Your task to perform on an android device: Set the phone to "Do not disturb". Image 0: 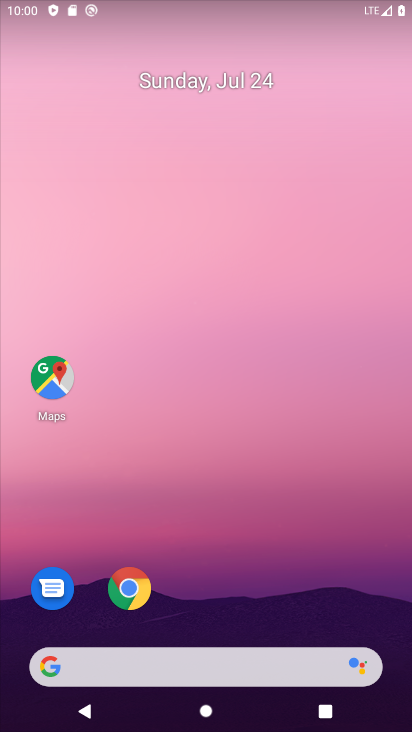
Step 0: drag from (133, 705) to (377, 33)
Your task to perform on an android device: Set the phone to "Do not disturb". Image 1: 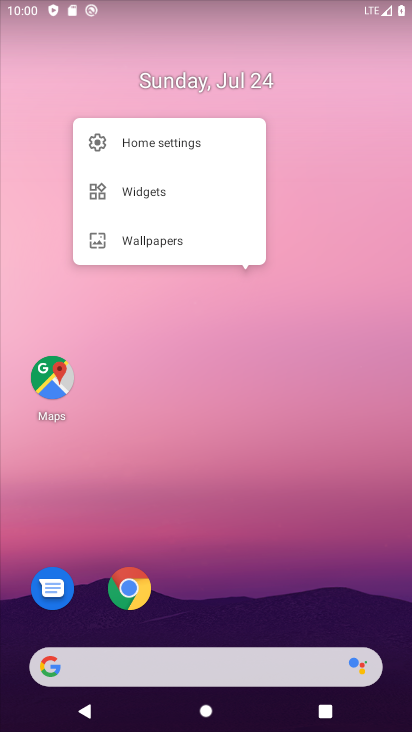
Step 1: click (310, 549)
Your task to perform on an android device: Set the phone to "Do not disturb". Image 2: 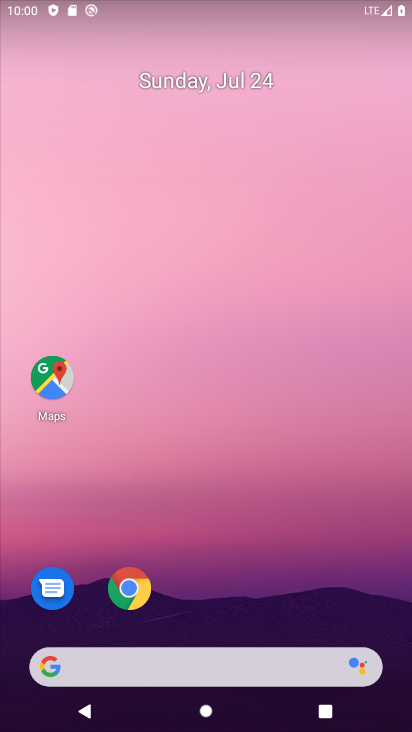
Step 2: drag from (276, 717) to (333, 73)
Your task to perform on an android device: Set the phone to "Do not disturb". Image 3: 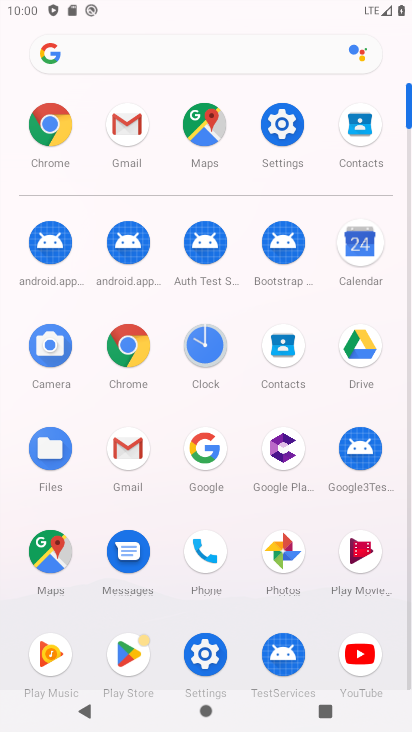
Step 3: click (275, 116)
Your task to perform on an android device: Set the phone to "Do not disturb". Image 4: 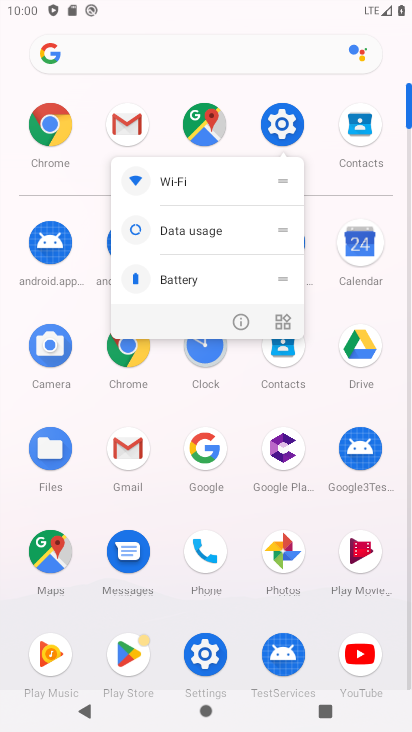
Step 4: click (275, 116)
Your task to perform on an android device: Set the phone to "Do not disturb". Image 5: 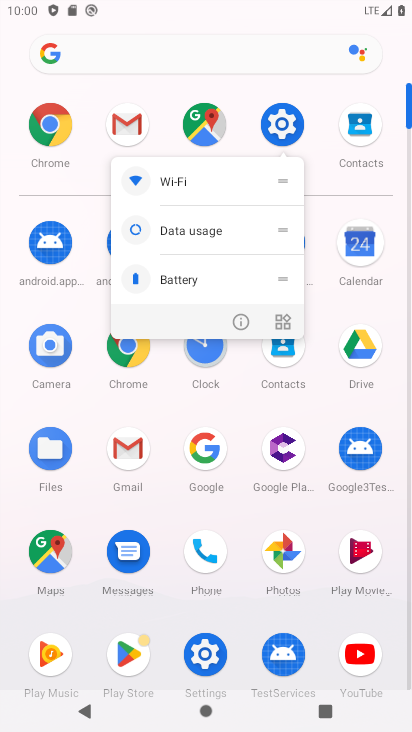
Step 5: click (275, 116)
Your task to perform on an android device: Set the phone to "Do not disturb". Image 6: 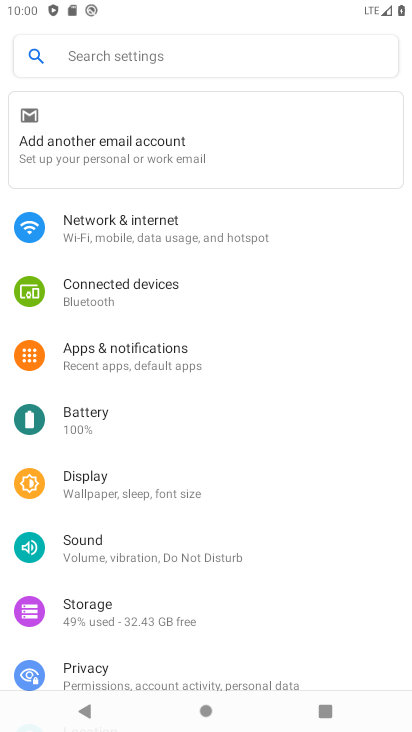
Step 6: click (224, 554)
Your task to perform on an android device: Set the phone to "Do not disturb". Image 7: 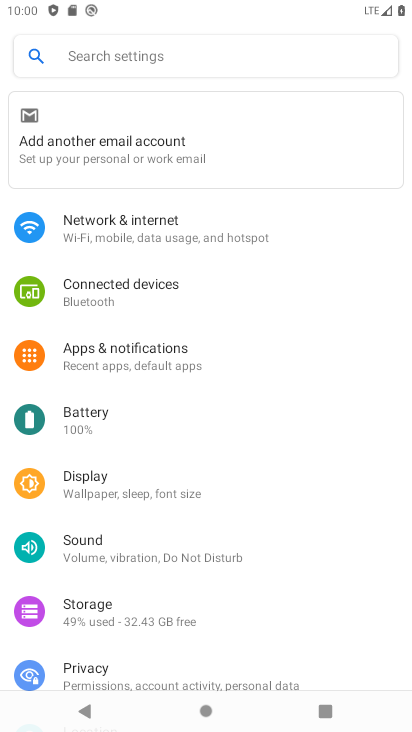
Step 7: click (224, 554)
Your task to perform on an android device: Set the phone to "Do not disturb". Image 8: 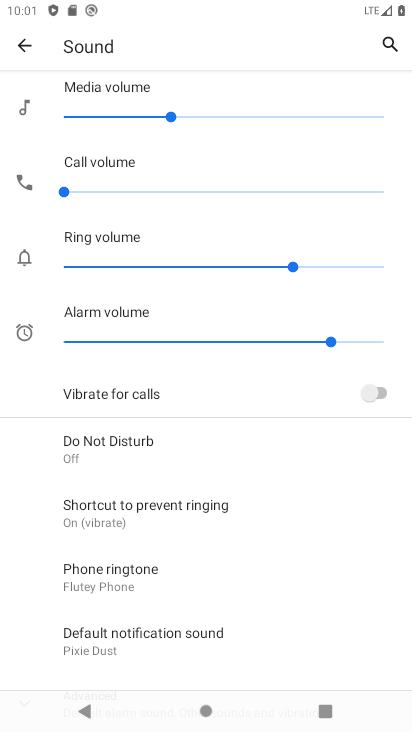
Step 8: task complete